Your task to perform on an android device: Search for the best rated running shoes on Nike.com Image 0: 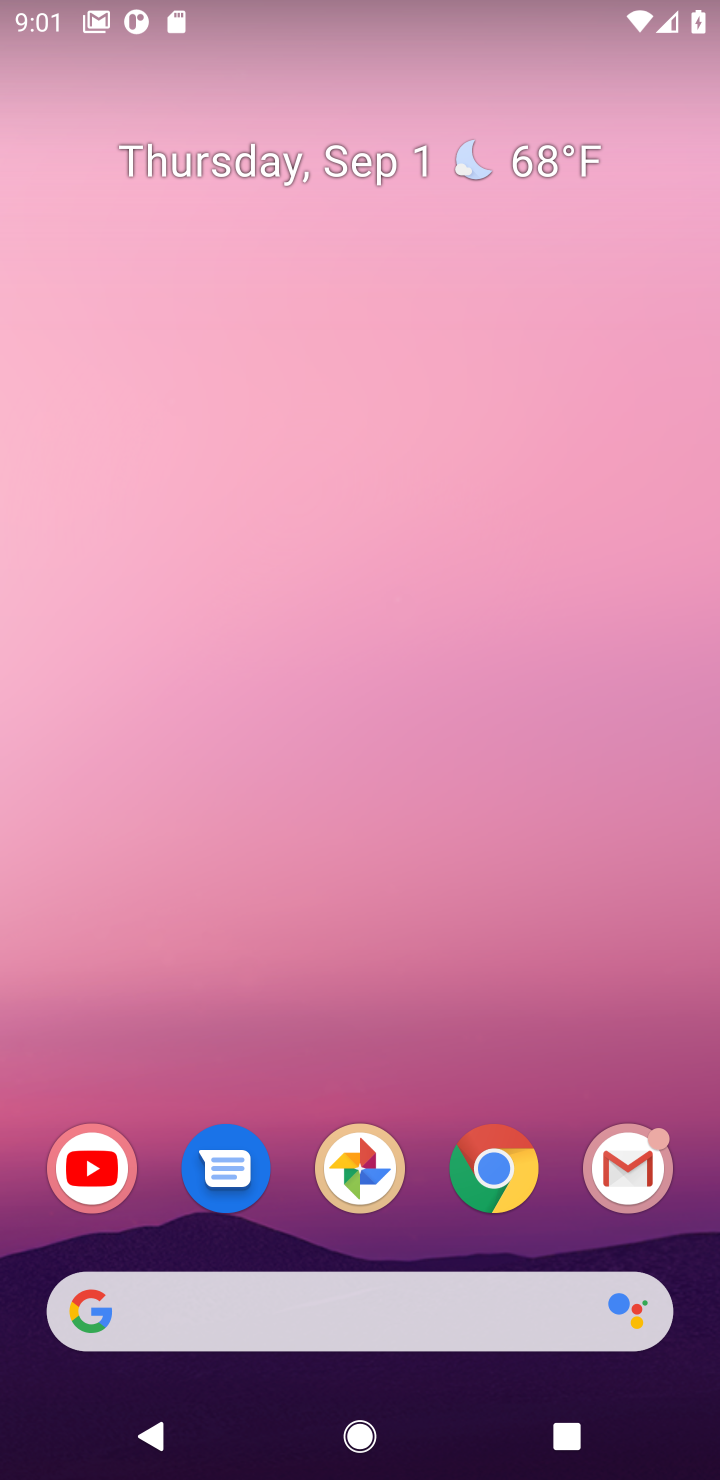
Step 0: drag from (455, 1221) to (489, 399)
Your task to perform on an android device: Search for the best rated running shoes on Nike.com Image 1: 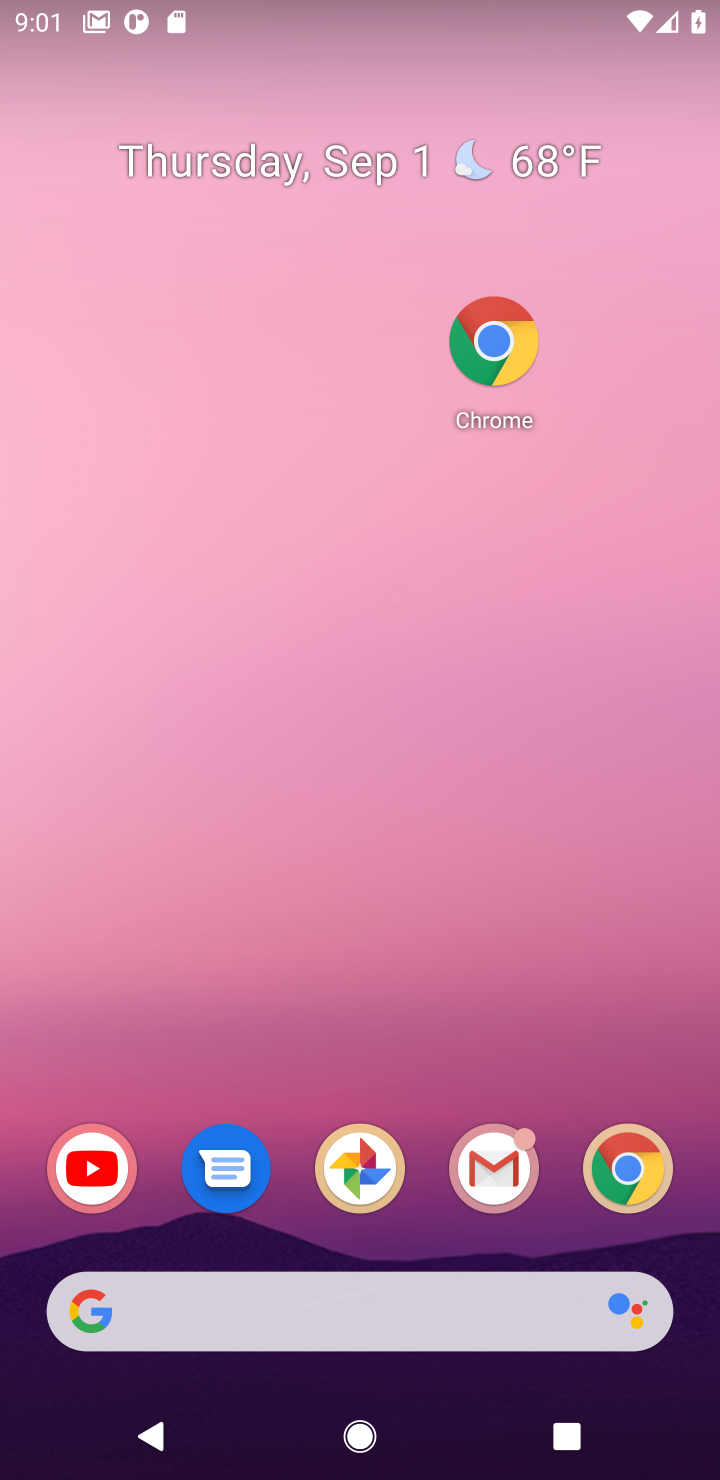
Step 1: click (361, 409)
Your task to perform on an android device: Search for the best rated running shoes on Nike.com Image 2: 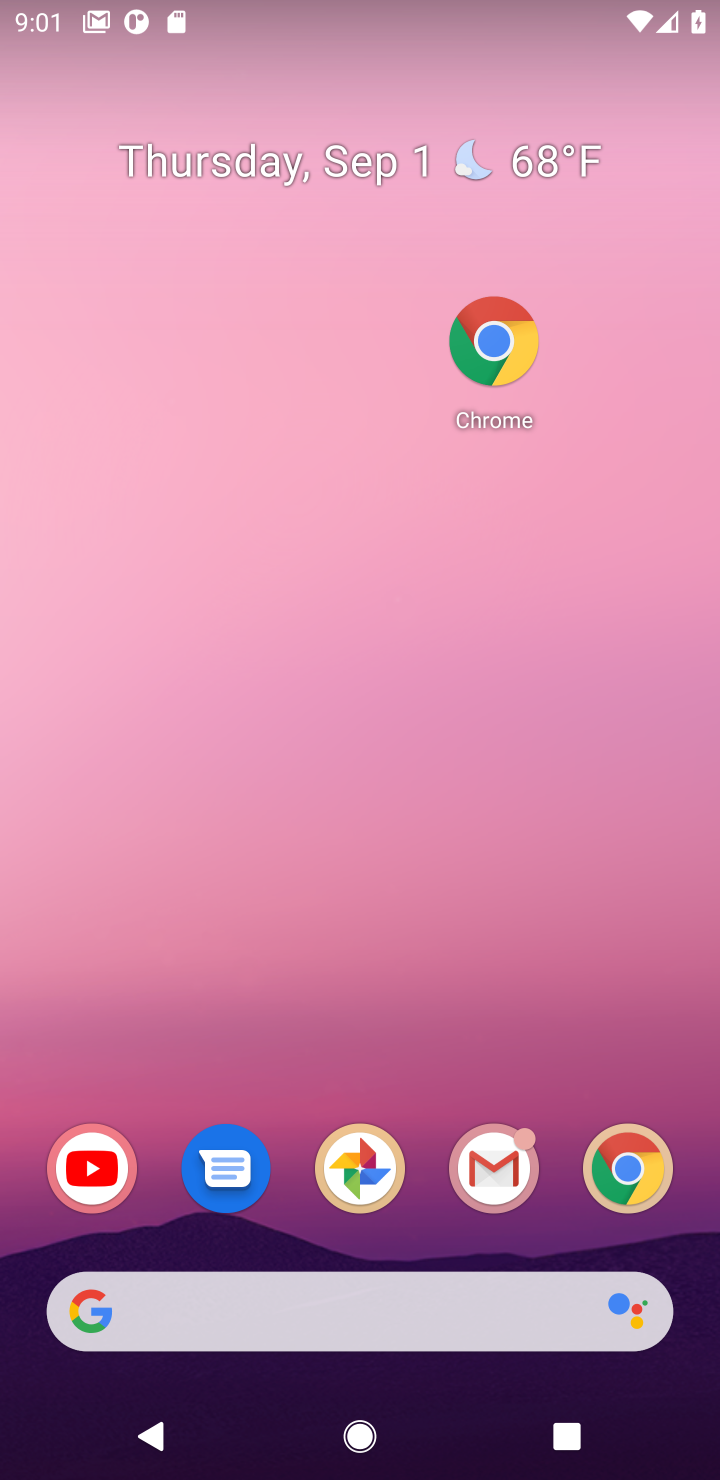
Step 2: click (349, 596)
Your task to perform on an android device: Search for the best rated running shoes on Nike.com Image 3: 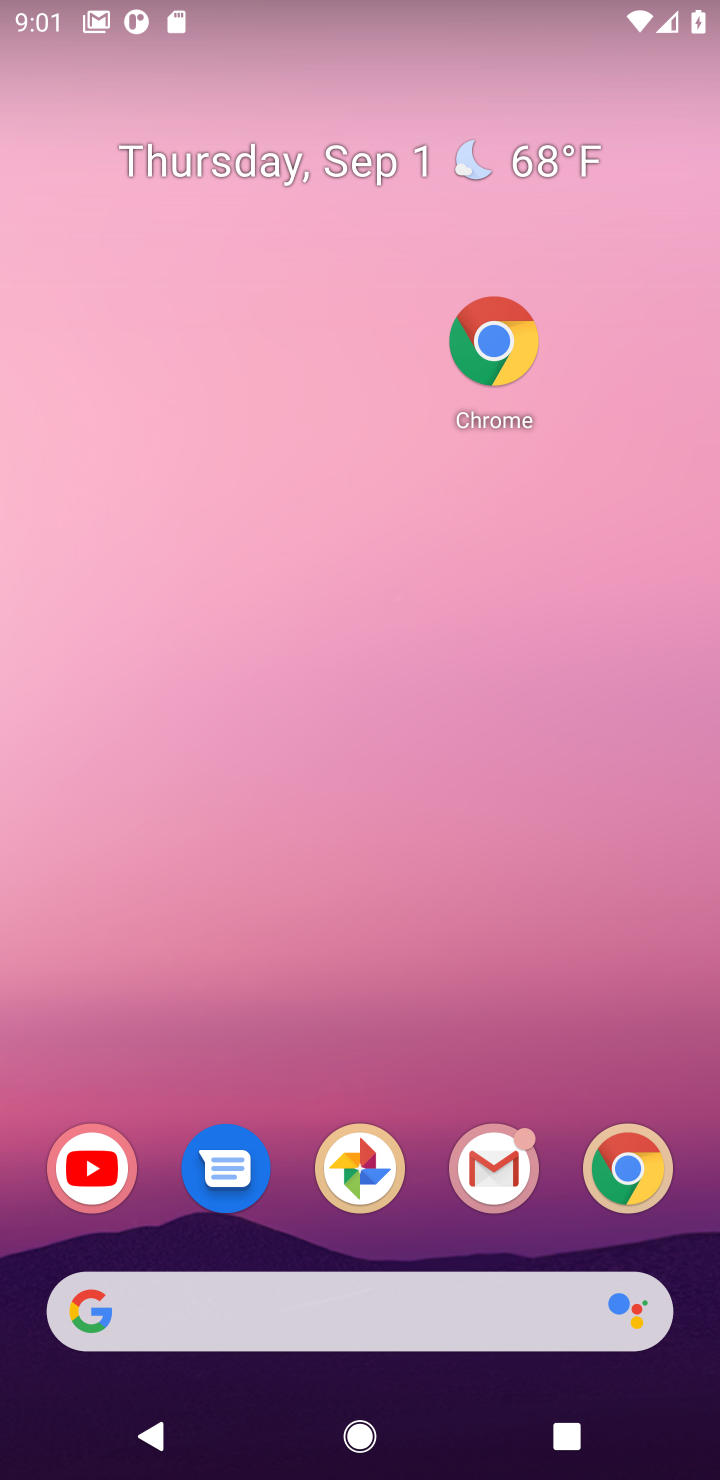
Step 3: drag from (241, 1299) to (272, 481)
Your task to perform on an android device: Search for the best rated running shoes on Nike.com Image 4: 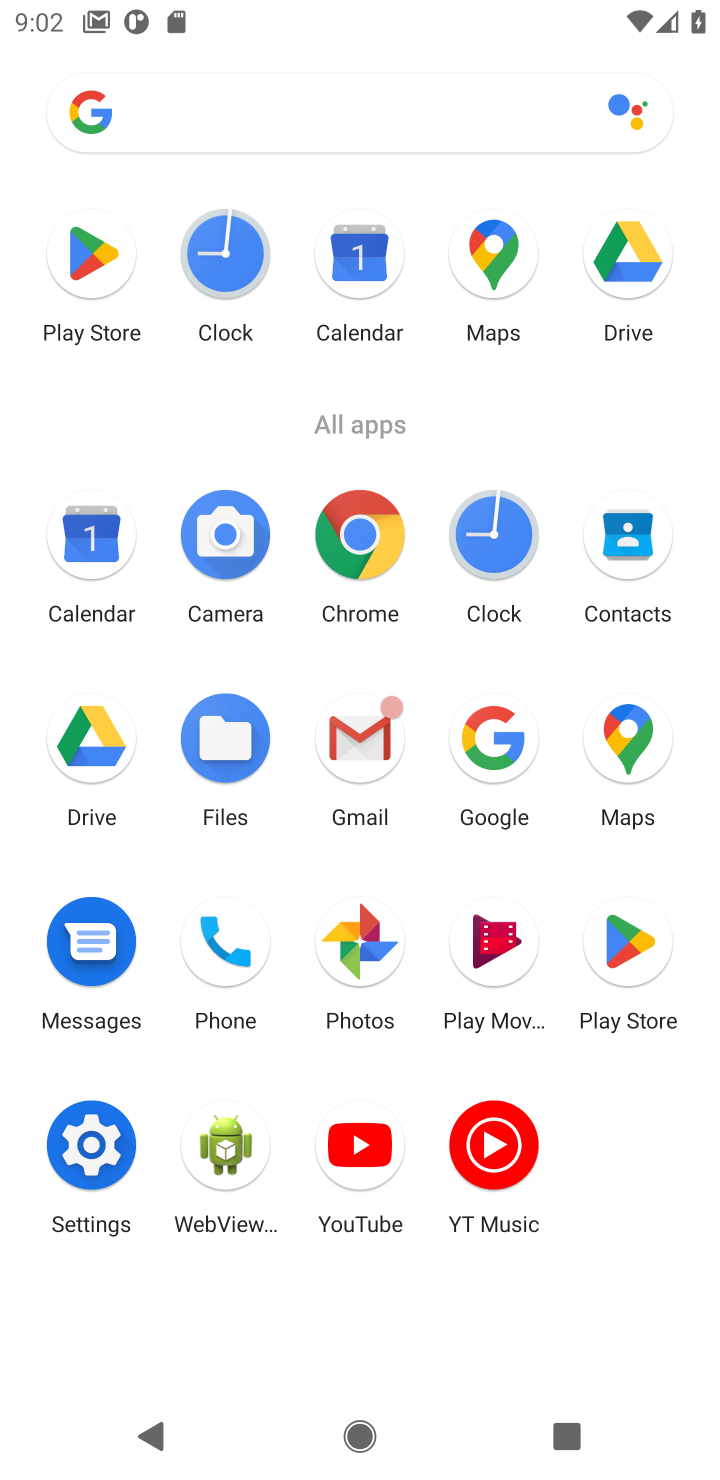
Step 4: click (487, 744)
Your task to perform on an android device: Search for the best rated running shoes on Nike.com Image 5: 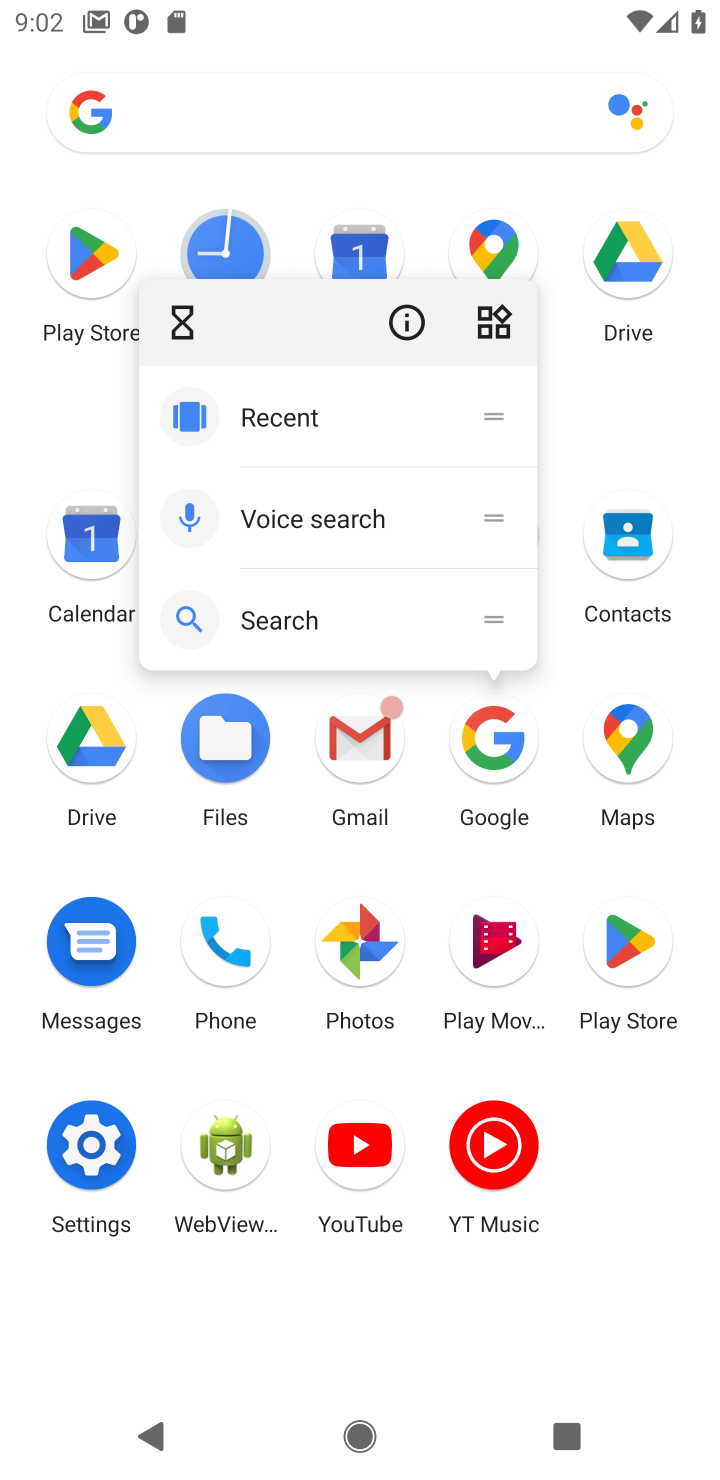
Step 5: click (487, 744)
Your task to perform on an android device: Search for the best rated running shoes on Nike.com Image 6: 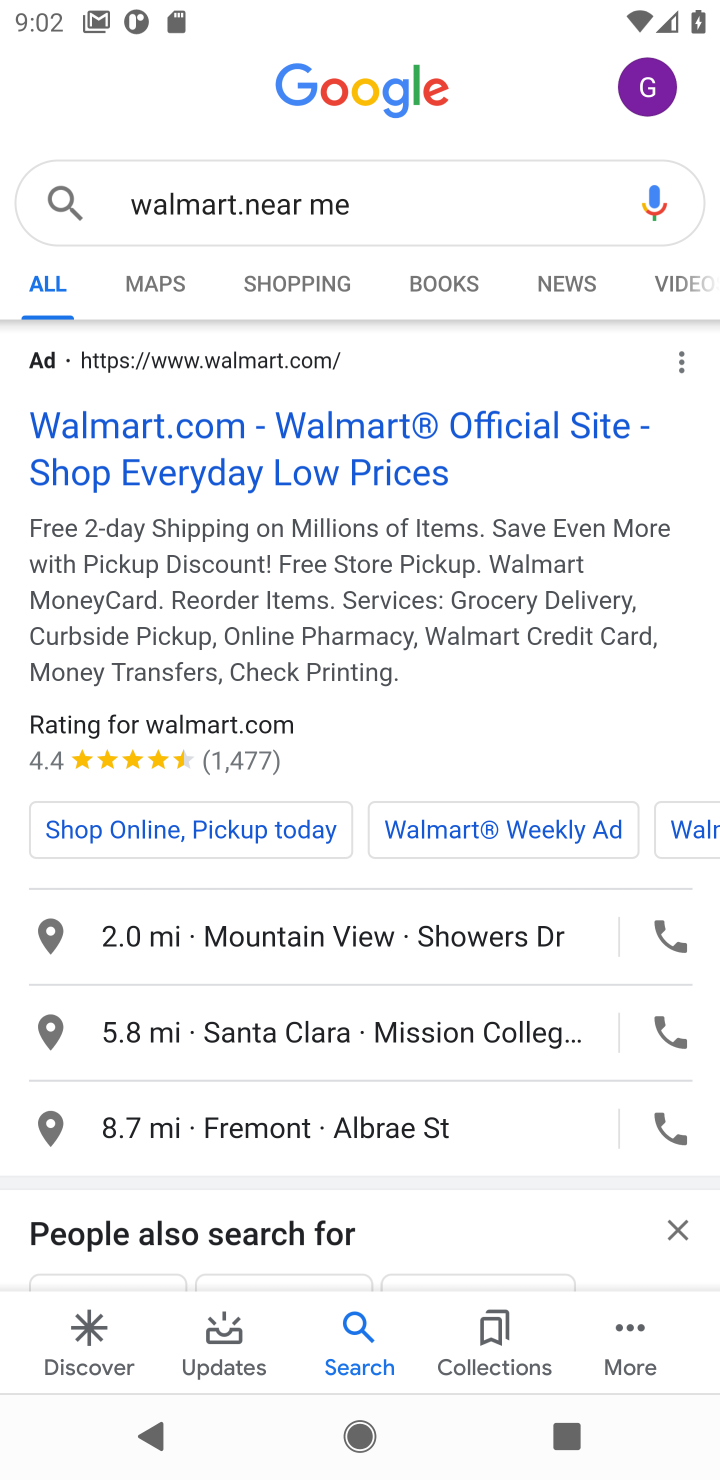
Step 6: click (402, 202)
Your task to perform on an android device: Search for the best rated running shoes on Nike.com Image 7: 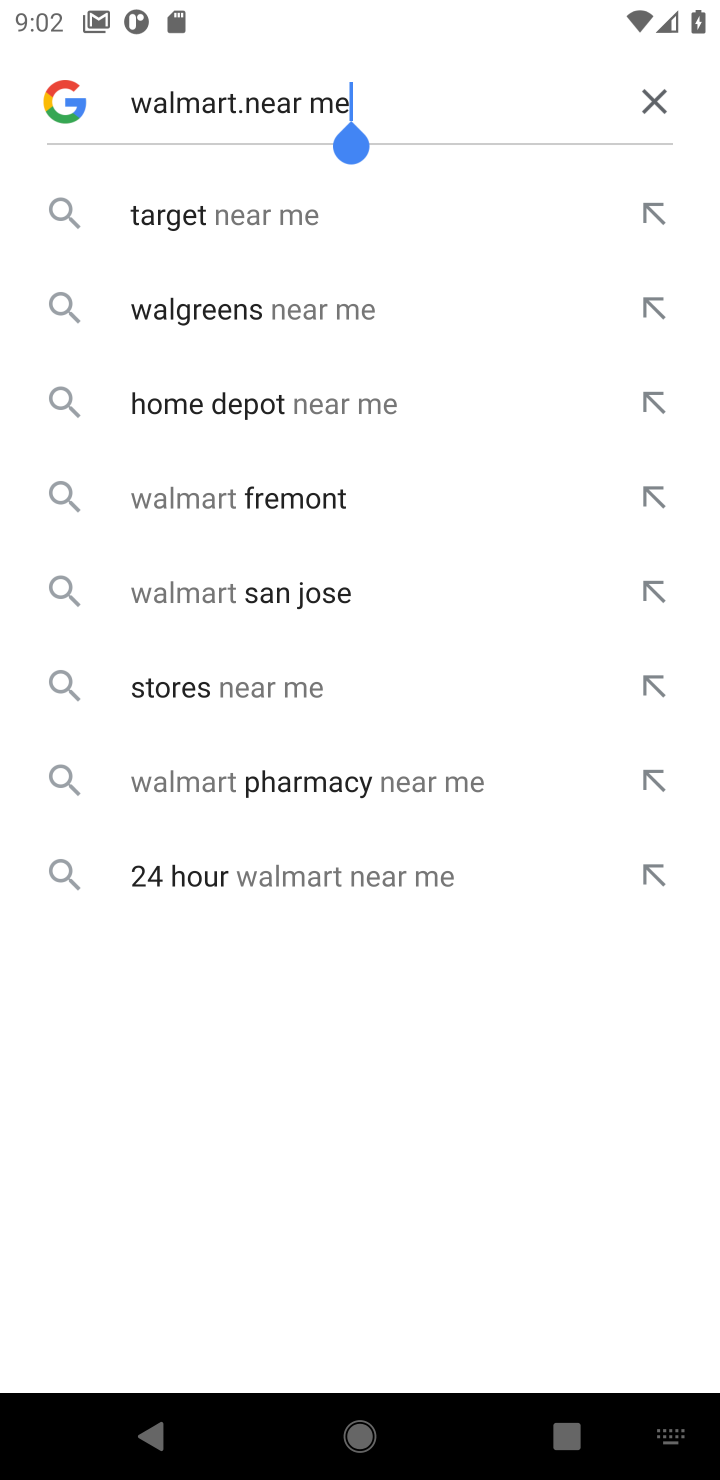
Step 7: click (671, 101)
Your task to perform on an android device: Search for the best rated running shoes on Nike.com Image 8: 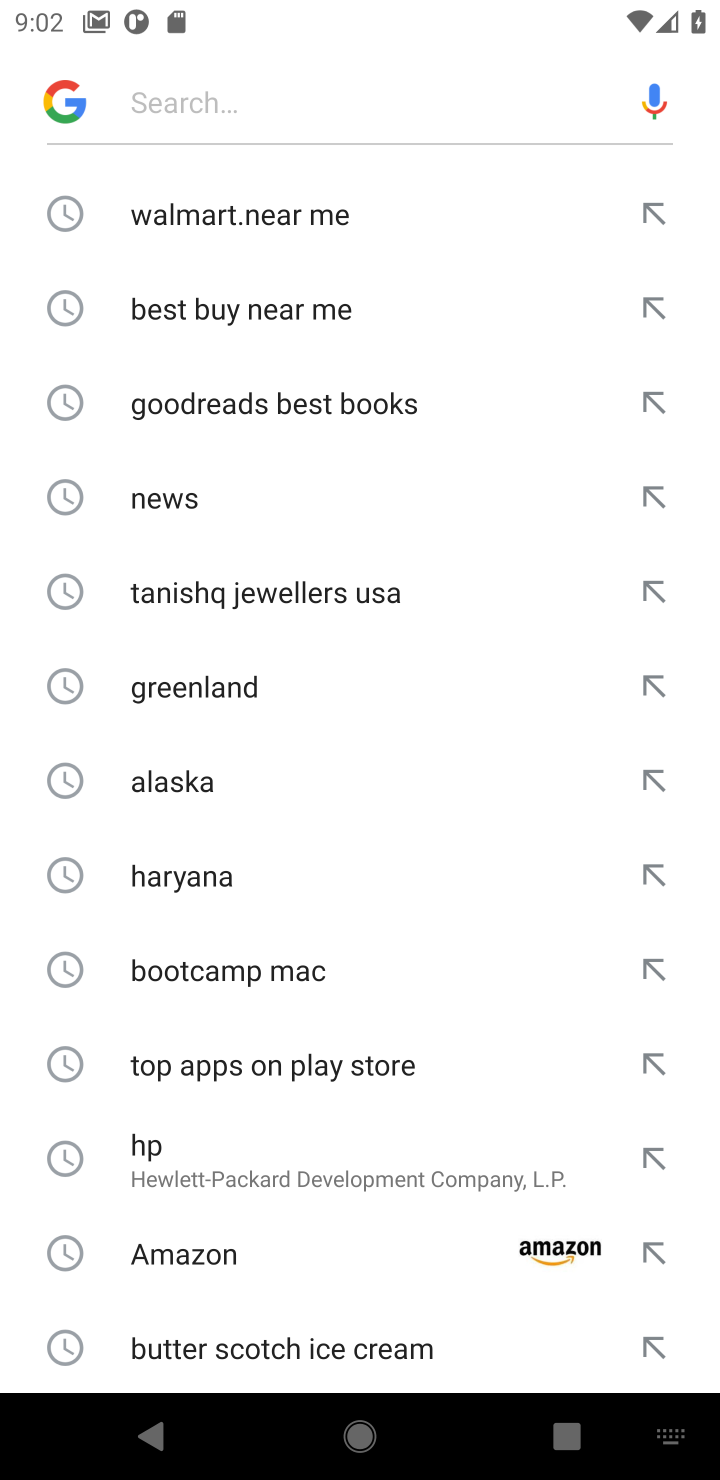
Step 8: click (416, 79)
Your task to perform on an android device: Search for the best rated running shoes on Nike.com Image 9: 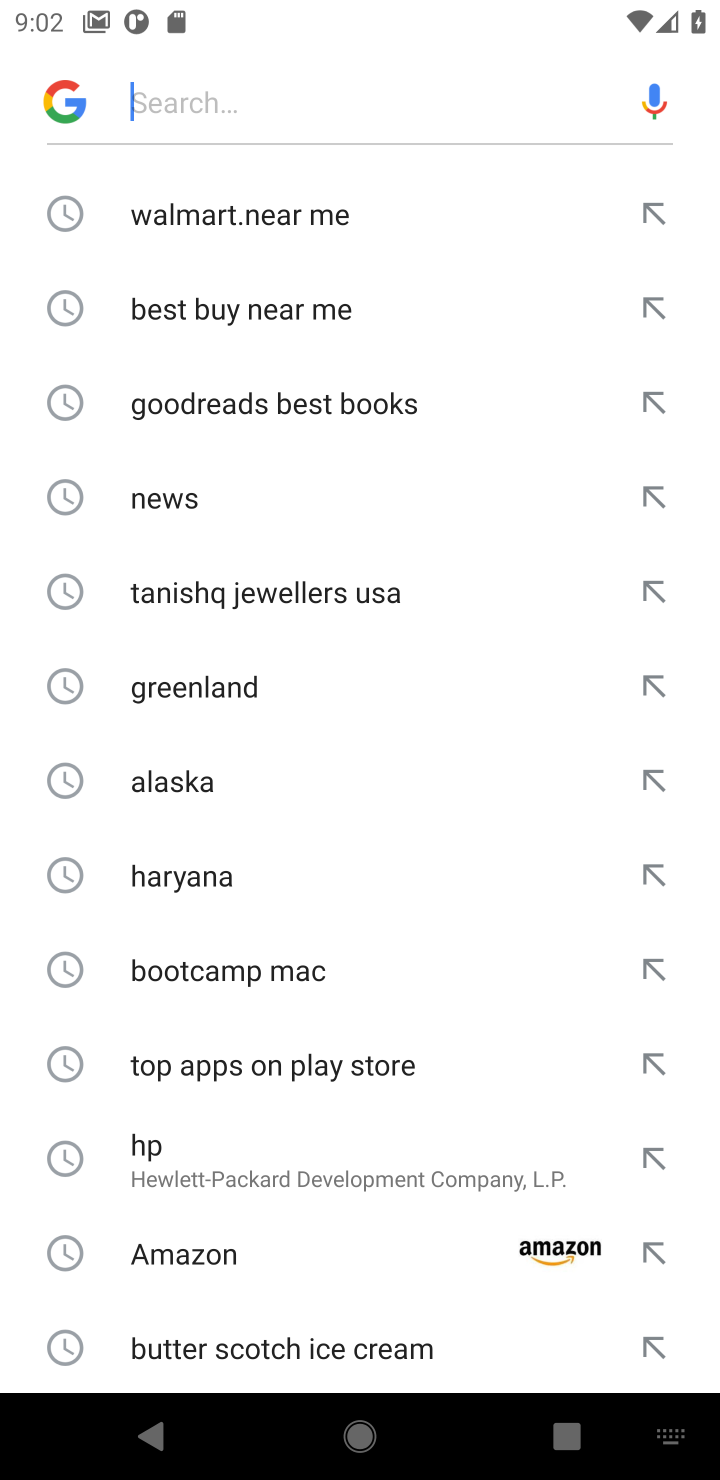
Step 9: type "Nike.com "
Your task to perform on an android device: Search for the best rated running shoes on Nike.com Image 10: 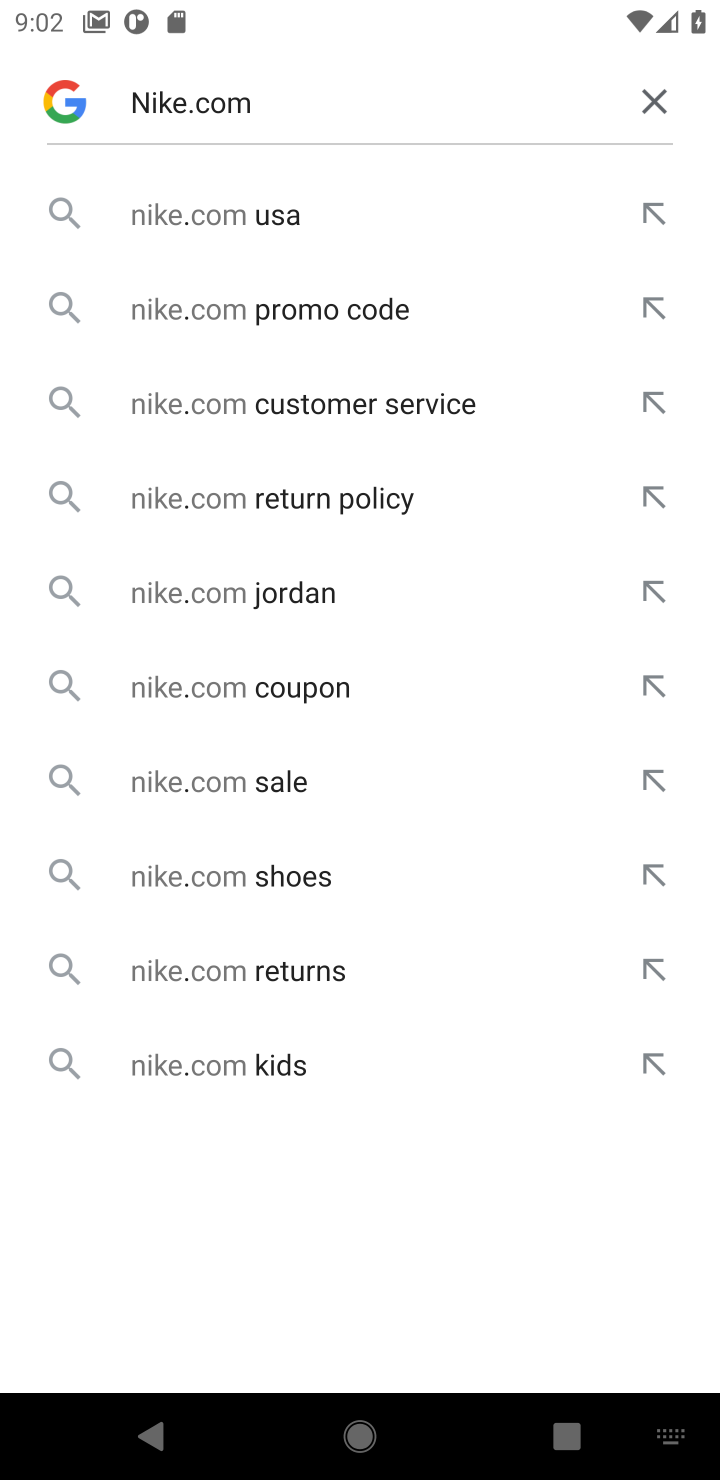
Step 10: click (247, 213)
Your task to perform on an android device: Search for the best rated running shoes on Nike.com Image 11: 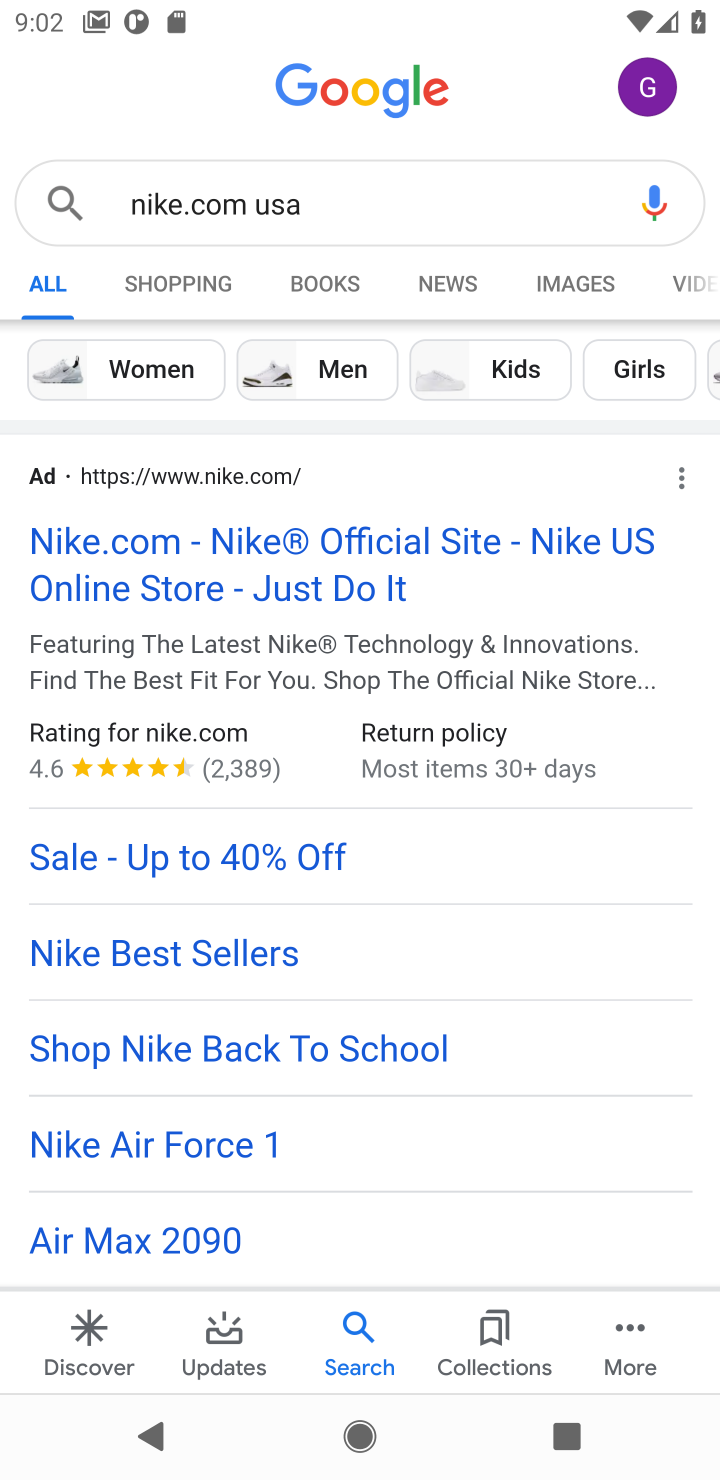
Step 11: drag from (326, 981) to (368, 726)
Your task to perform on an android device: Search for the best rated running shoes on Nike.com Image 12: 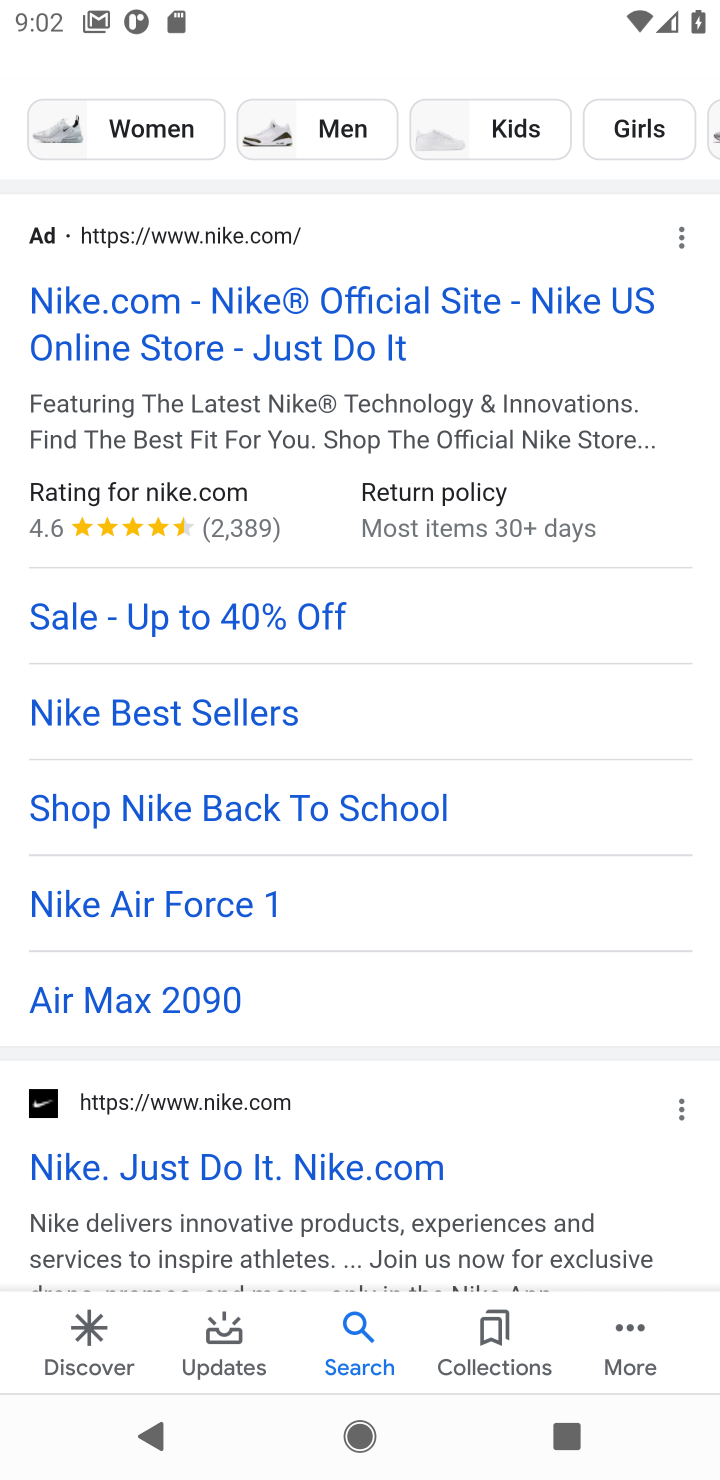
Step 12: drag from (303, 1211) to (477, 795)
Your task to perform on an android device: Search for the best rated running shoes on Nike.com Image 13: 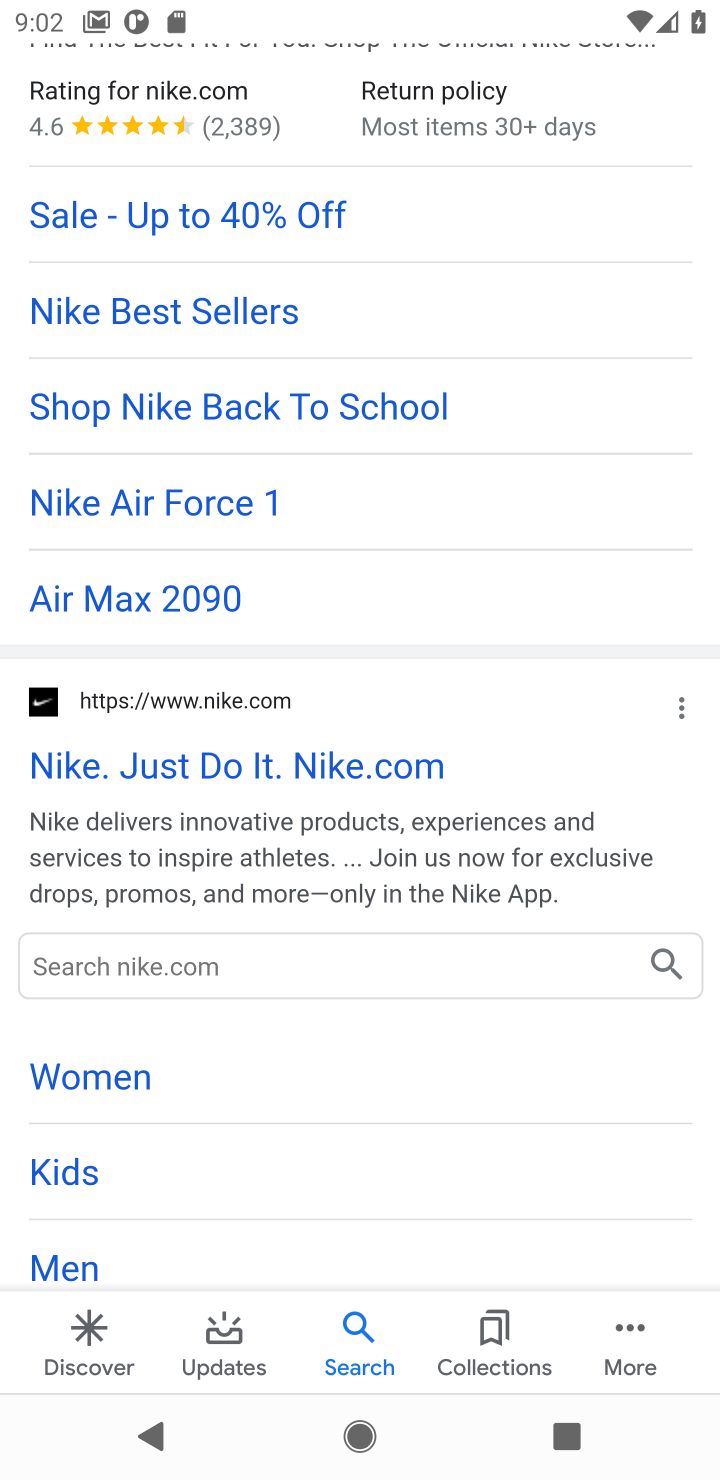
Step 13: click (236, 744)
Your task to perform on an android device: Search for the best rated running shoes on Nike.com Image 14: 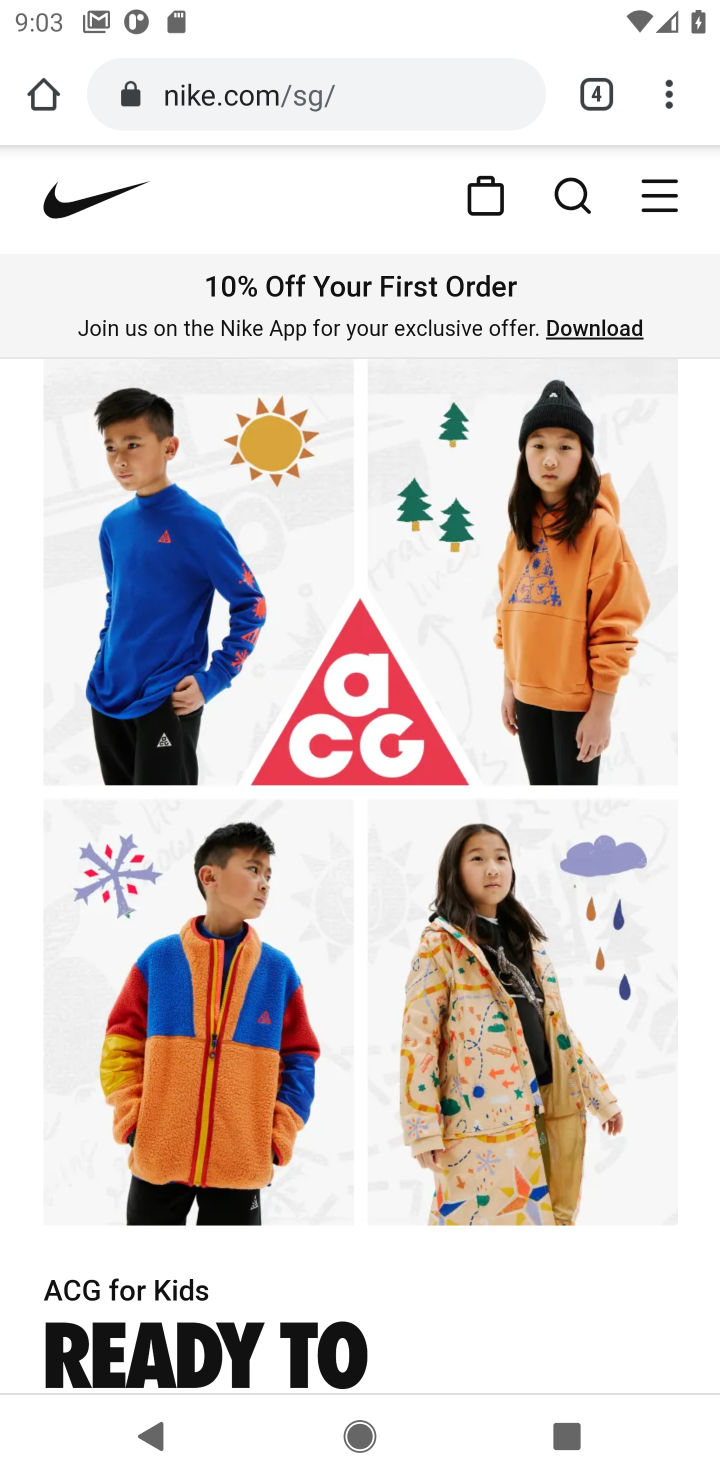
Step 14: click (575, 175)
Your task to perform on an android device: Search for the best rated running shoes on Nike.com Image 15: 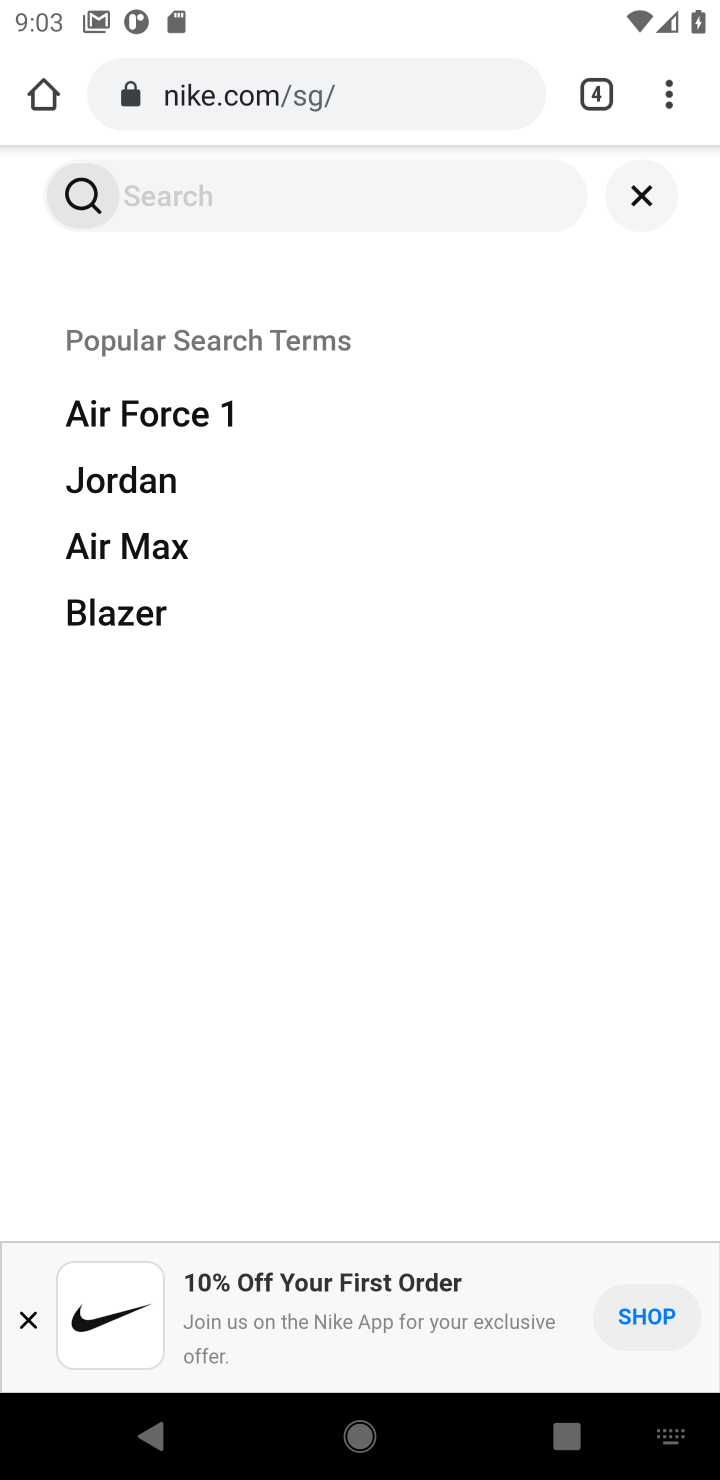
Step 15: click (287, 181)
Your task to perform on an android device: Search for the best rated running shoes on Nike.com Image 16: 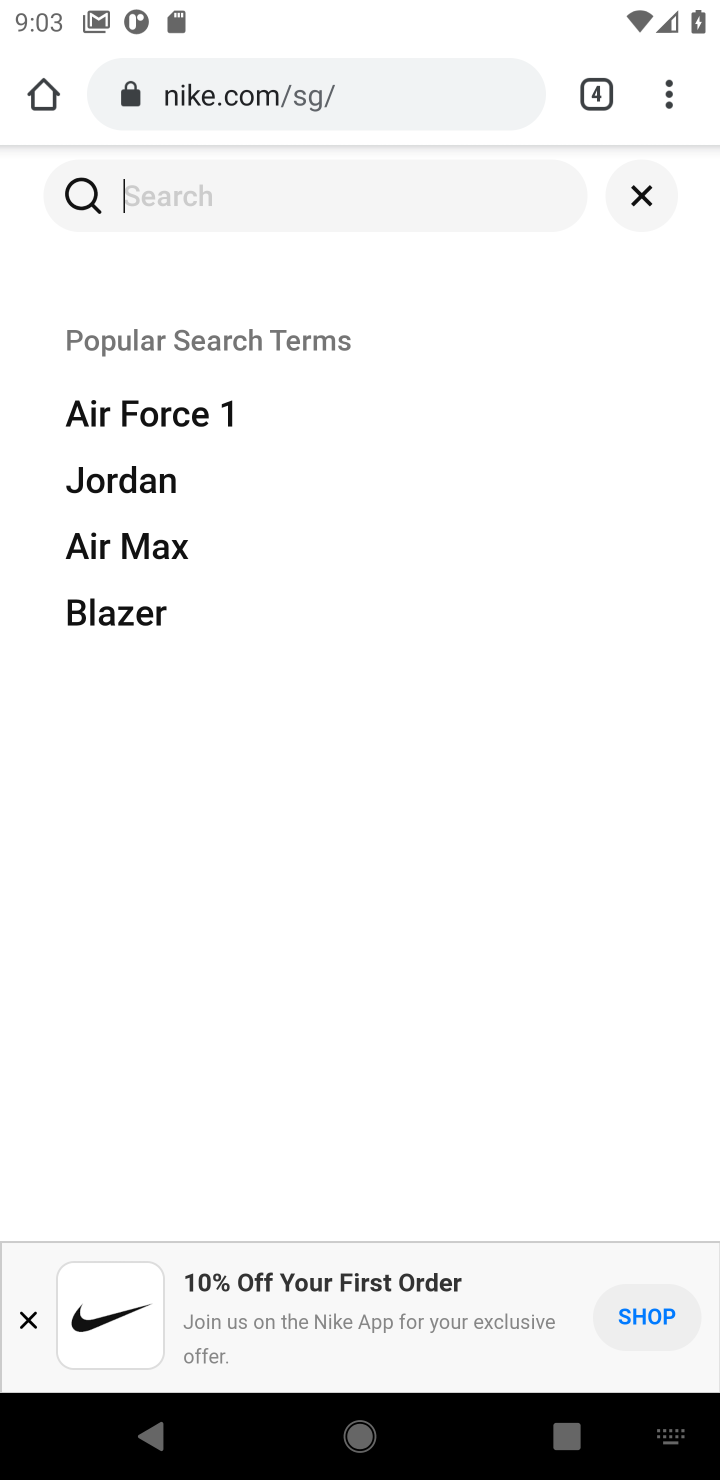
Step 16: type " running shoes  "
Your task to perform on an android device: Search for the best rated running shoes on Nike.com Image 17: 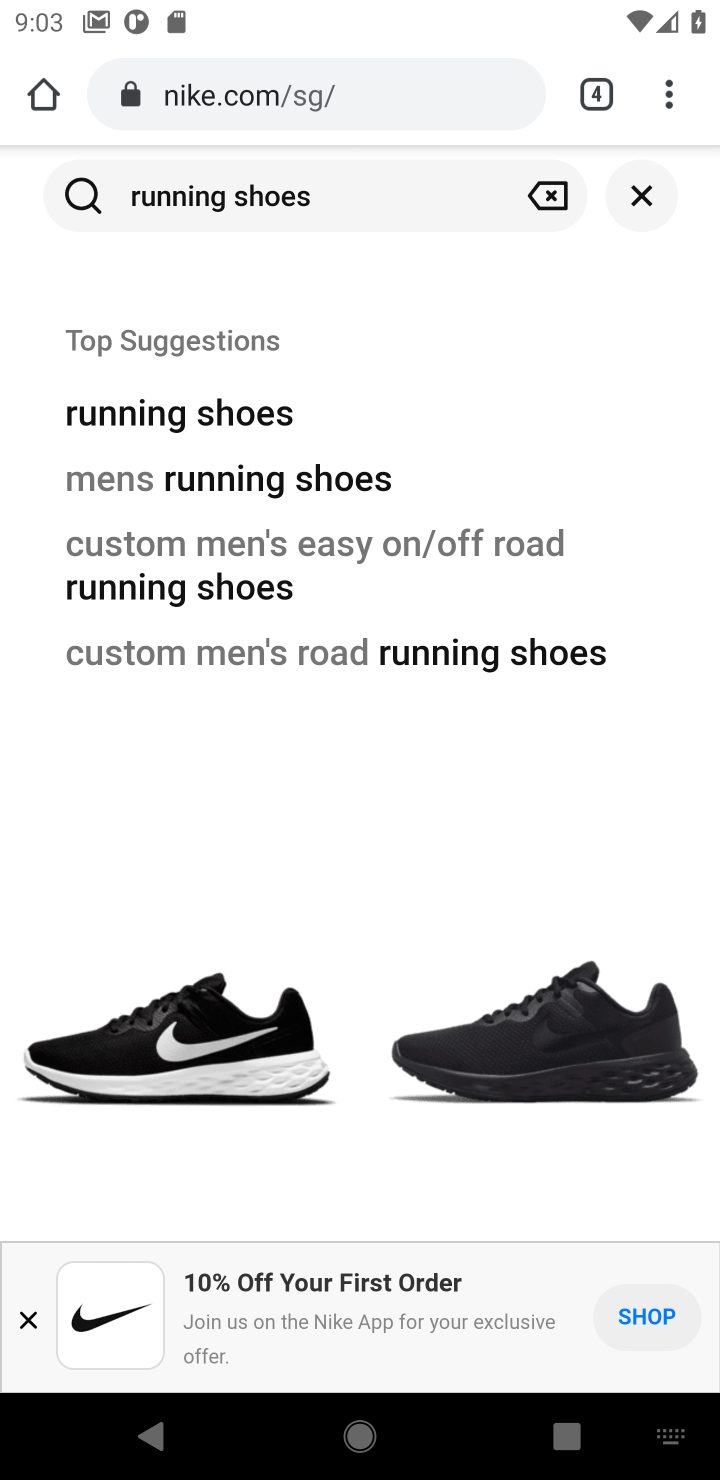
Step 17: click (196, 408)
Your task to perform on an android device: Search for the best rated running shoes on Nike.com Image 18: 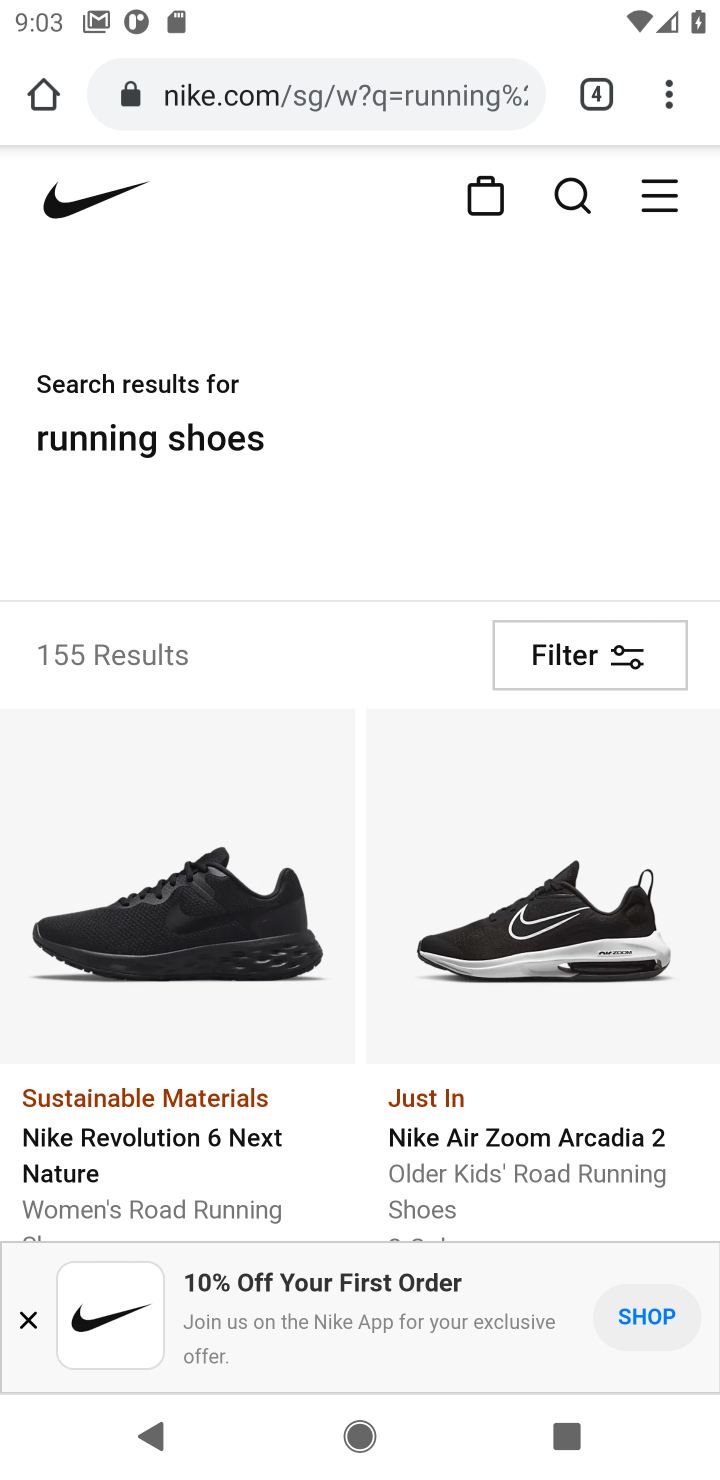
Step 18: click (15, 1314)
Your task to perform on an android device: Search for the best rated running shoes on Nike.com Image 19: 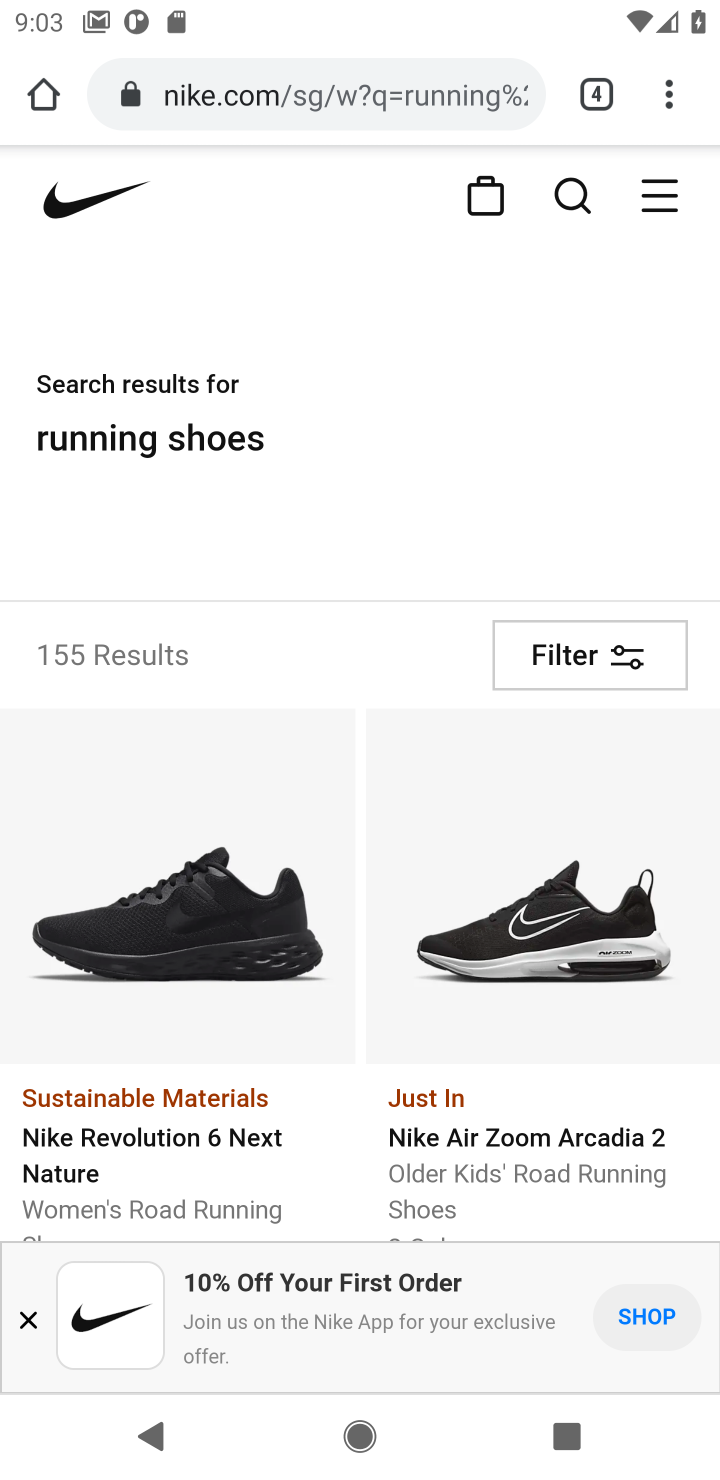
Step 19: click (25, 1314)
Your task to perform on an android device: Search for the best rated running shoes on Nike.com Image 20: 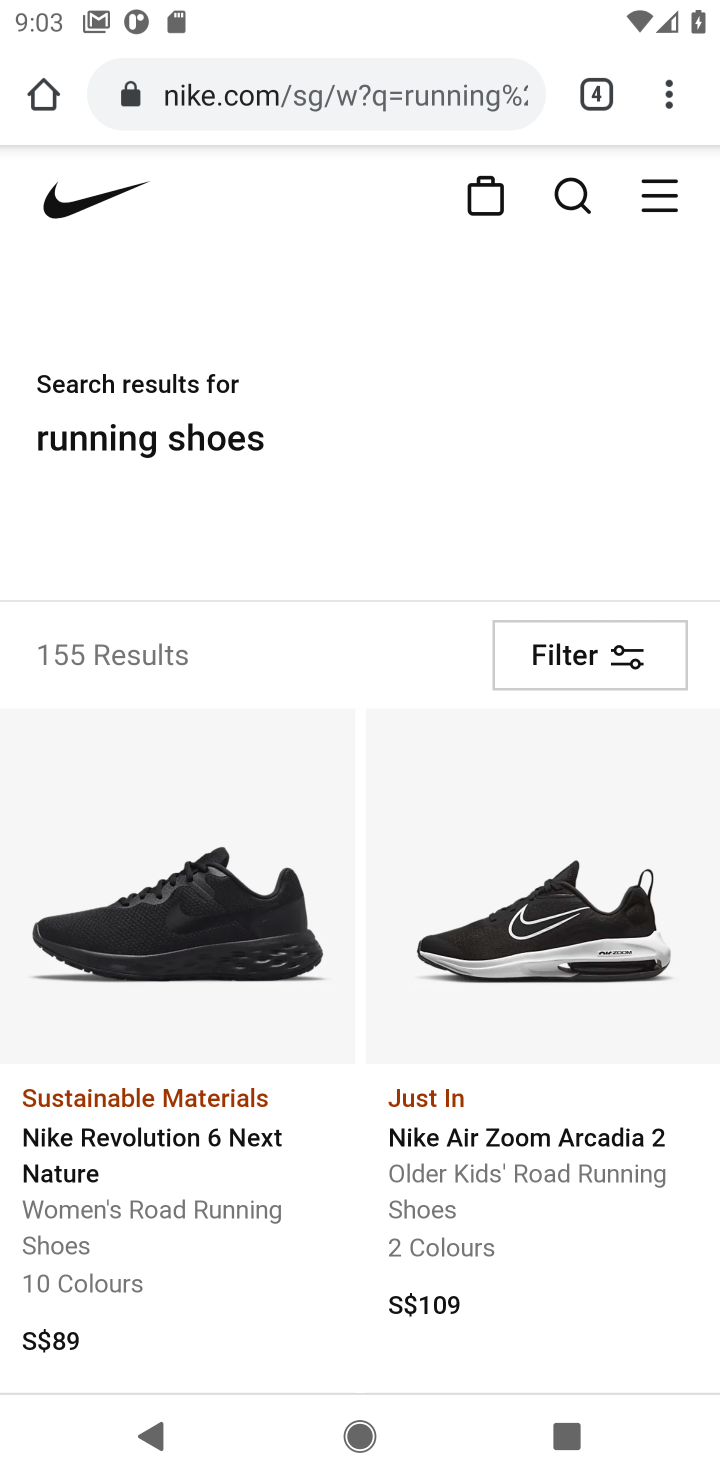
Step 20: task complete